Your task to perform on an android device: Toggle the flashlight Image 0: 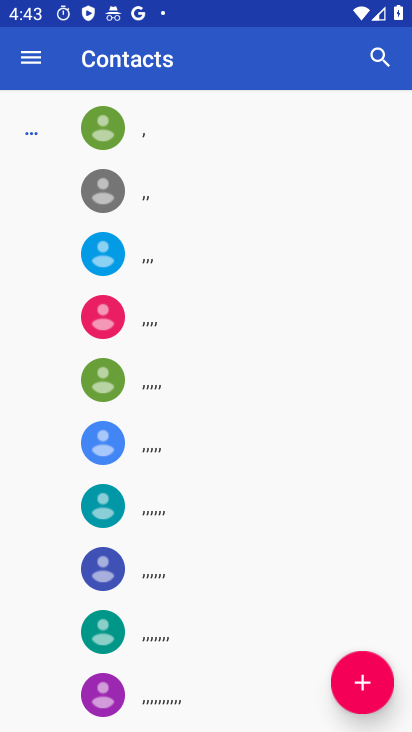
Step 0: press home button
Your task to perform on an android device: Toggle the flashlight Image 1: 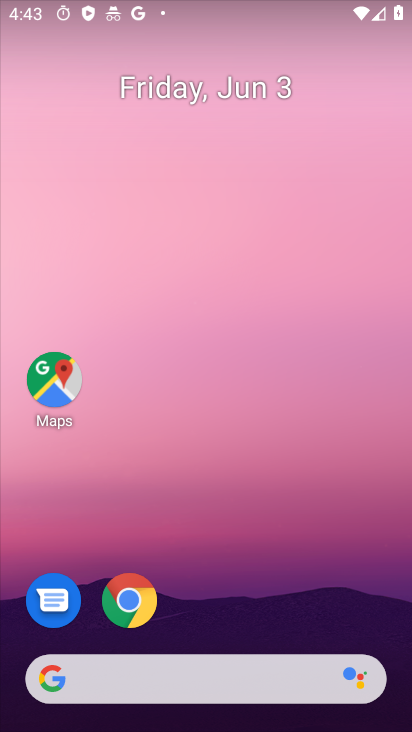
Step 1: drag from (395, 692) to (323, 85)
Your task to perform on an android device: Toggle the flashlight Image 2: 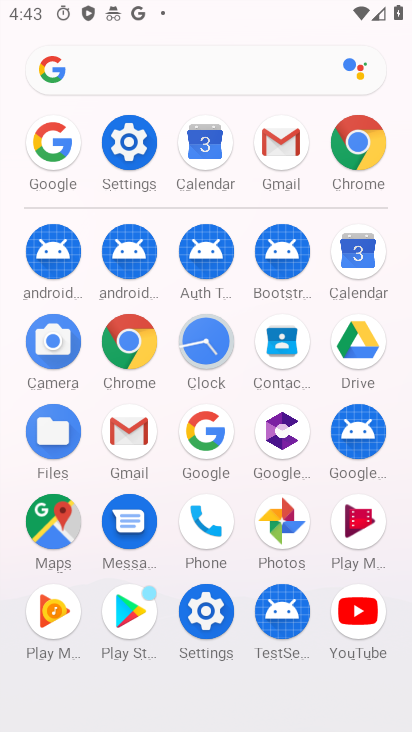
Step 2: click (139, 137)
Your task to perform on an android device: Toggle the flashlight Image 3: 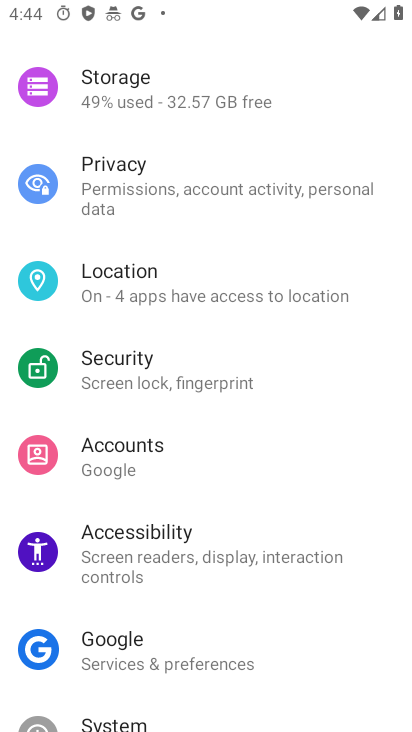
Step 3: drag from (232, 113) to (240, 429)
Your task to perform on an android device: Toggle the flashlight Image 4: 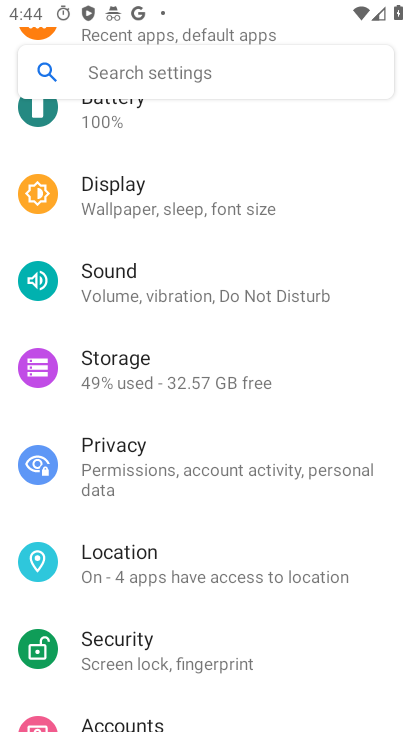
Step 4: click (172, 208)
Your task to perform on an android device: Toggle the flashlight Image 5: 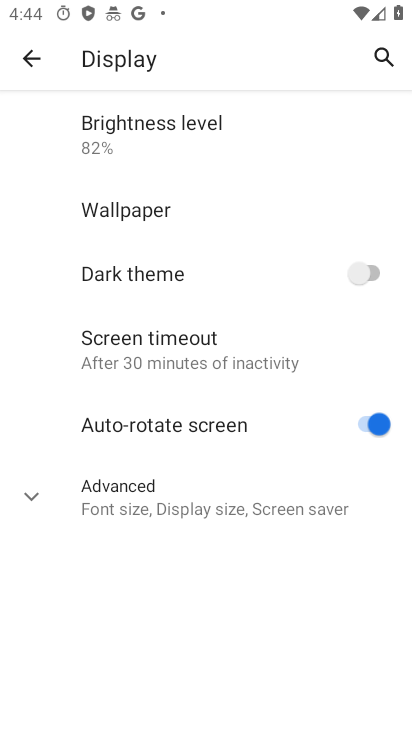
Step 5: task complete